Your task to perform on an android device: Open Wikipedia Image 0: 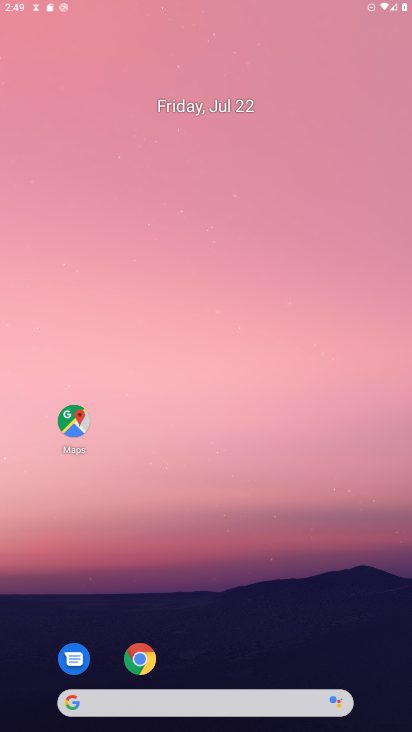
Step 0: drag from (253, 387) to (320, 20)
Your task to perform on an android device: Open Wikipedia Image 1: 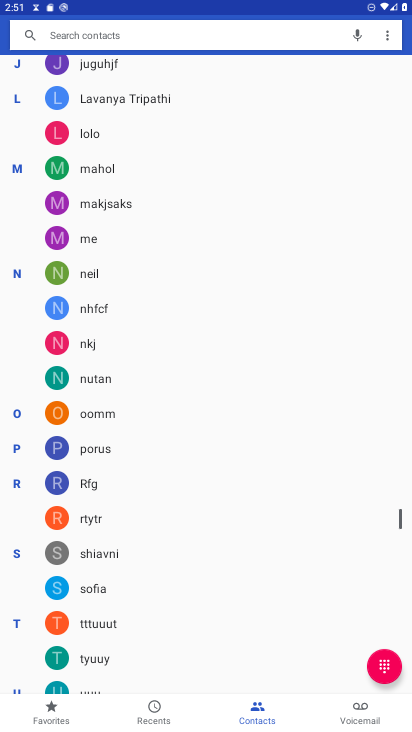
Step 1: press home button
Your task to perform on an android device: Open Wikipedia Image 2: 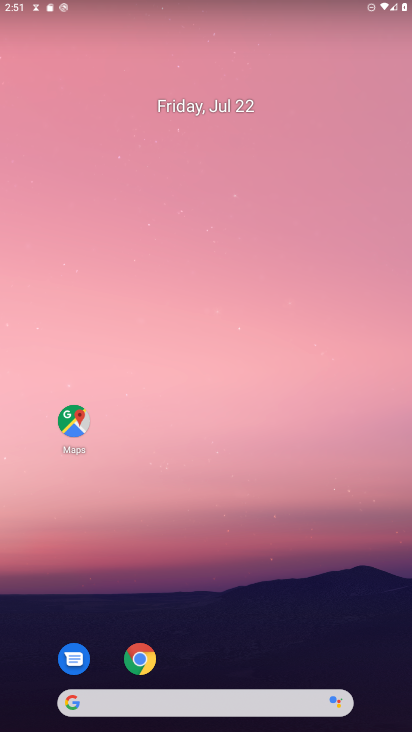
Step 2: drag from (253, 623) to (209, 1)
Your task to perform on an android device: Open Wikipedia Image 3: 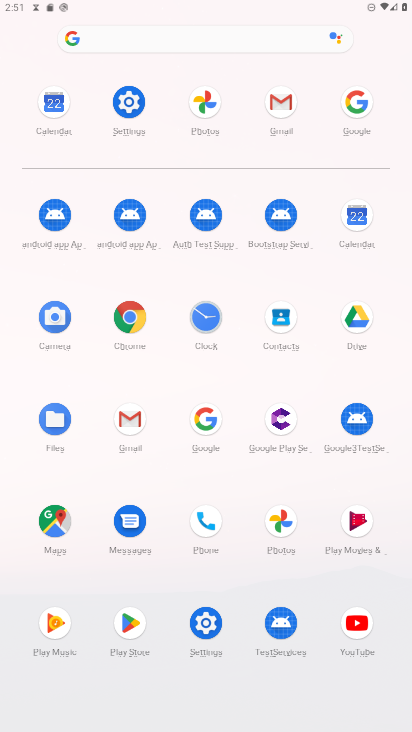
Step 3: click (137, 325)
Your task to perform on an android device: Open Wikipedia Image 4: 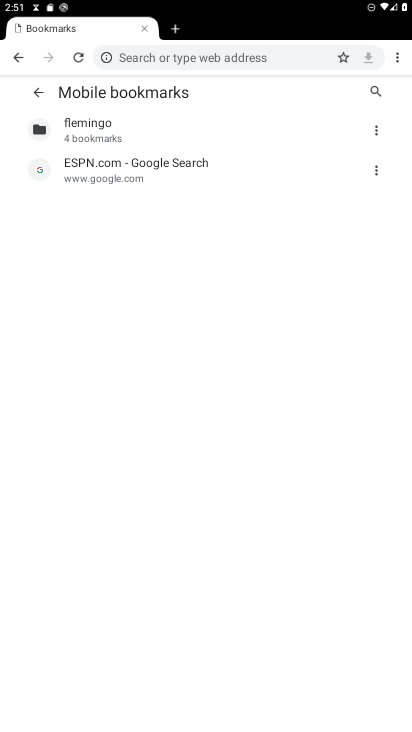
Step 4: click (174, 30)
Your task to perform on an android device: Open Wikipedia Image 5: 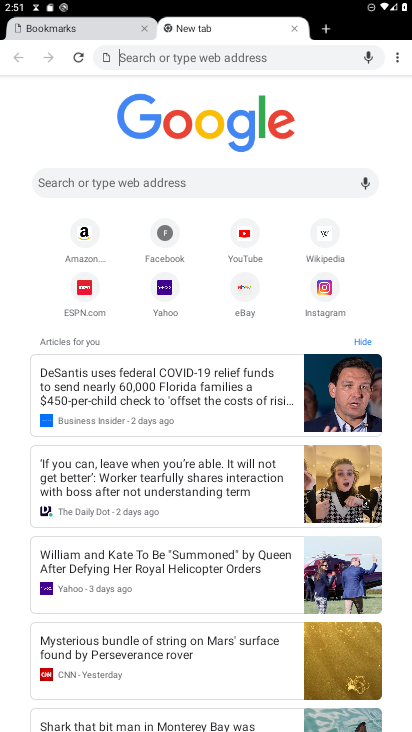
Step 5: click (319, 245)
Your task to perform on an android device: Open Wikipedia Image 6: 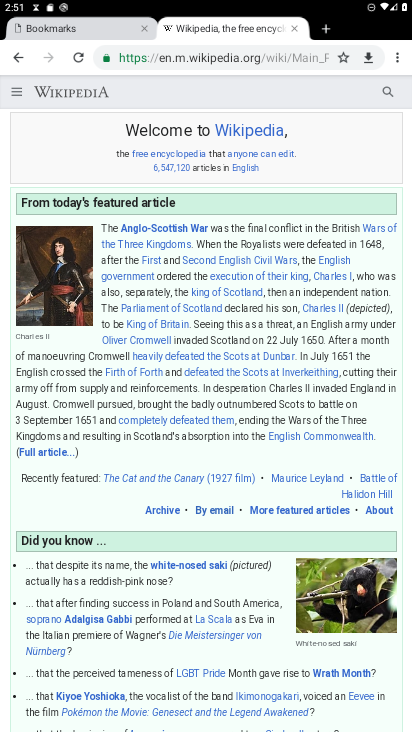
Step 6: task complete